Your task to perform on an android device: set the stopwatch Image 0: 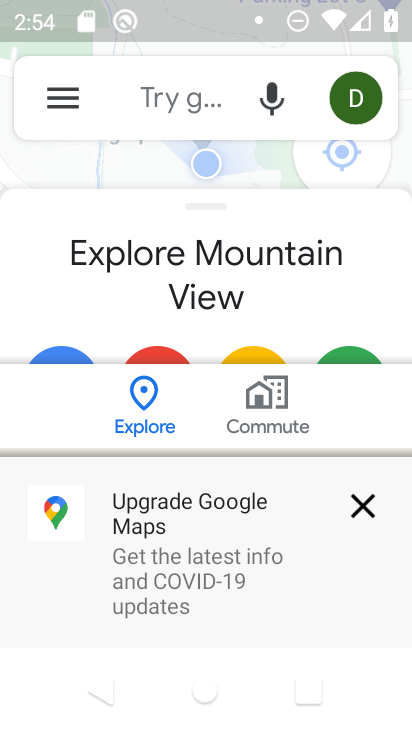
Step 0: press home button
Your task to perform on an android device: set the stopwatch Image 1: 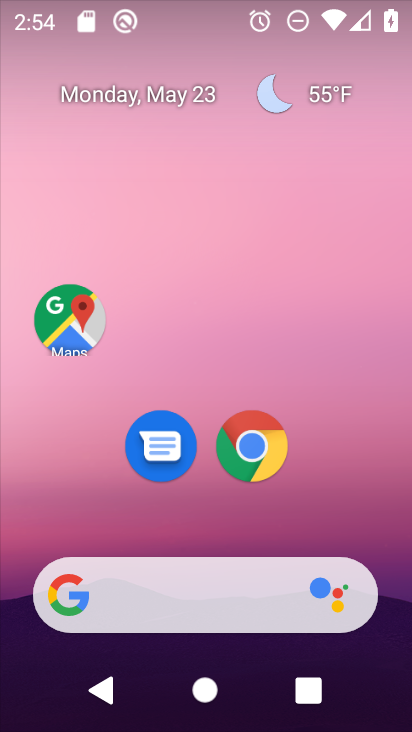
Step 1: drag from (202, 531) to (182, 173)
Your task to perform on an android device: set the stopwatch Image 2: 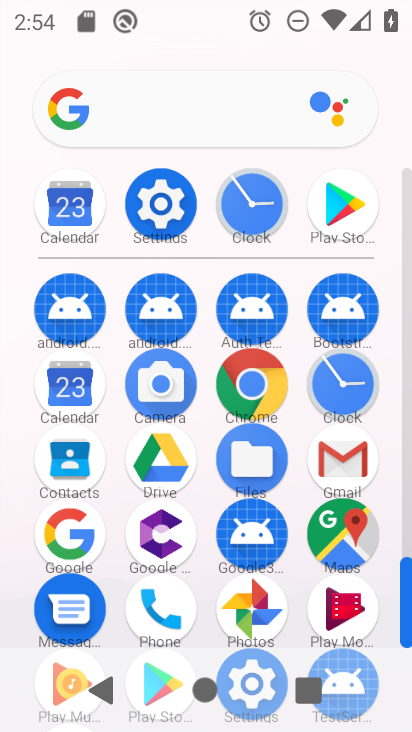
Step 2: click (327, 365)
Your task to perform on an android device: set the stopwatch Image 3: 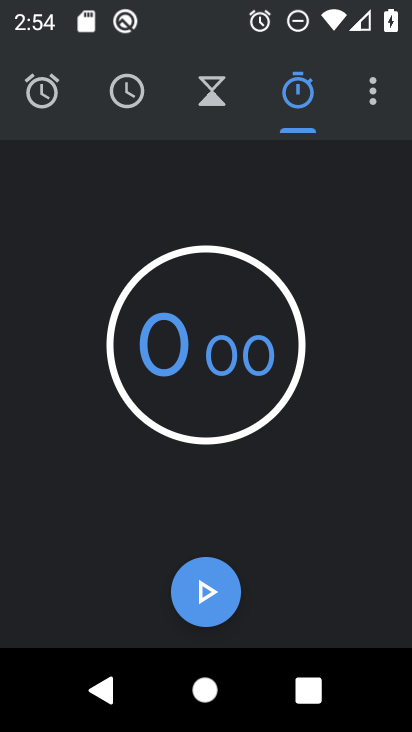
Step 3: click (210, 591)
Your task to perform on an android device: set the stopwatch Image 4: 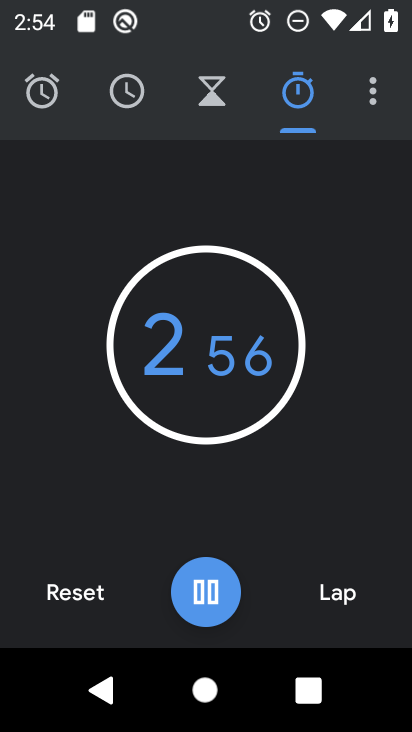
Step 4: task complete